Your task to perform on an android device: Show me the alarms in the clock app Image 0: 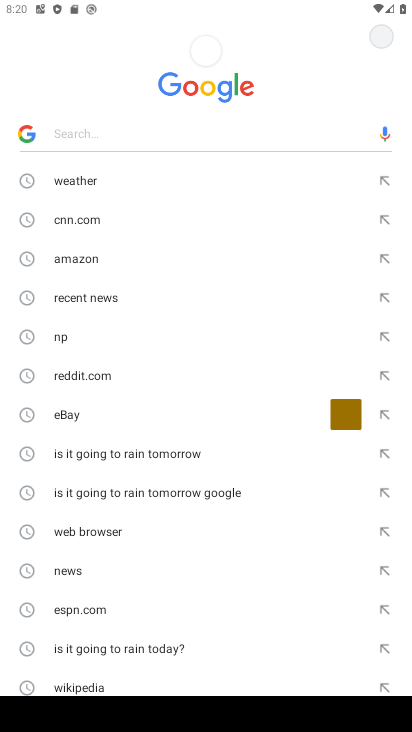
Step 0: press home button
Your task to perform on an android device: Show me the alarms in the clock app Image 1: 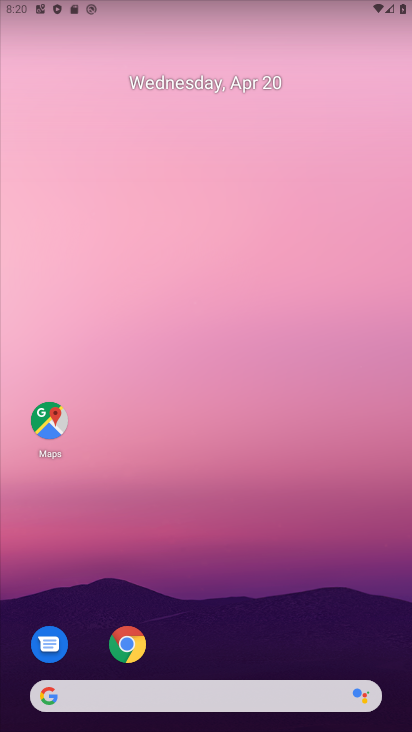
Step 1: drag from (332, 635) to (289, 63)
Your task to perform on an android device: Show me the alarms in the clock app Image 2: 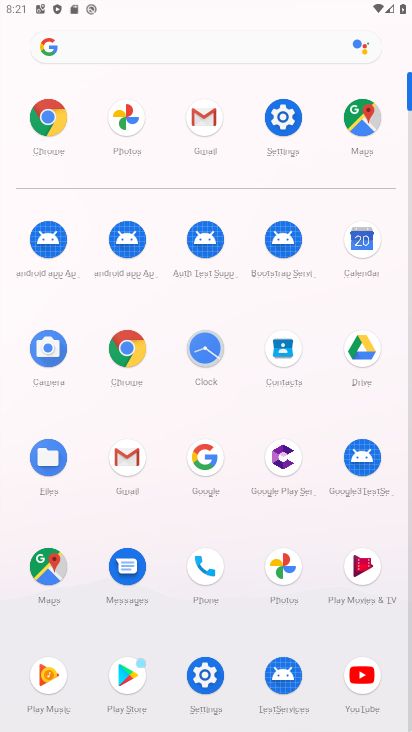
Step 2: click (205, 343)
Your task to perform on an android device: Show me the alarms in the clock app Image 3: 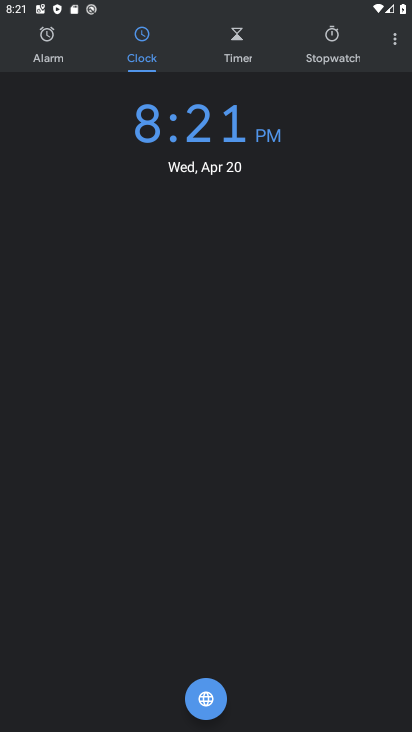
Step 3: click (41, 48)
Your task to perform on an android device: Show me the alarms in the clock app Image 4: 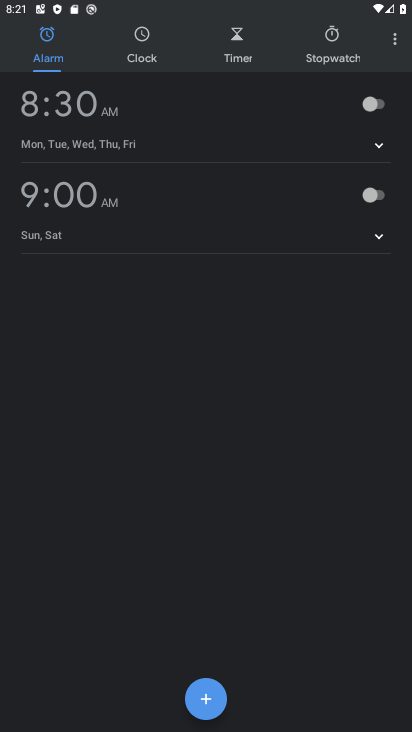
Step 4: task complete